Your task to perform on an android device: toggle location history Image 0: 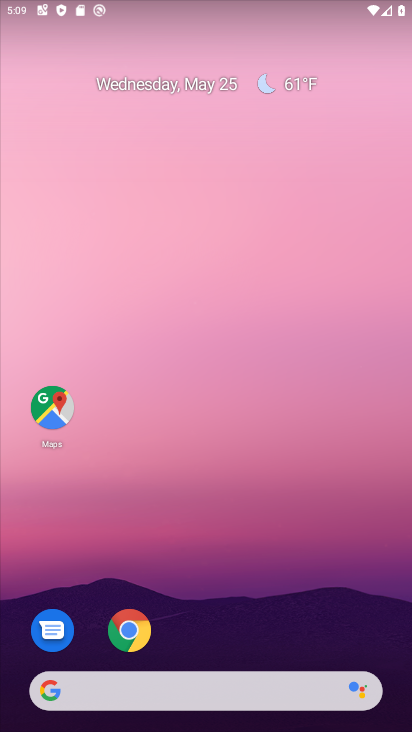
Step 0: drag from (251, 617) to (293, 56)
Your task to perform on an android device: toggle location history Image 1: 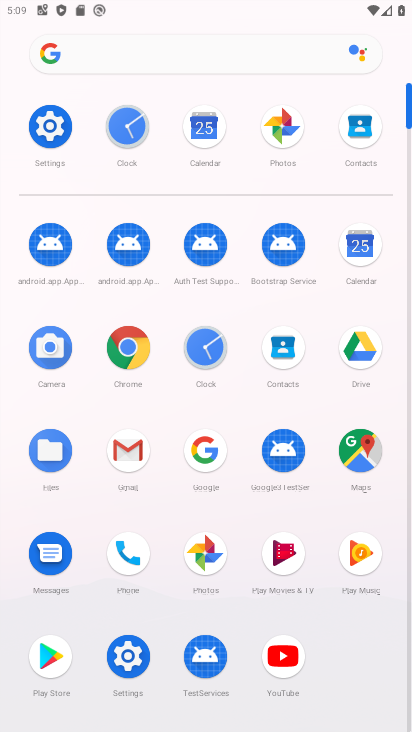
Step 1: click (53, 130)
Your task to perform on an android device: toggle location history Image 2: 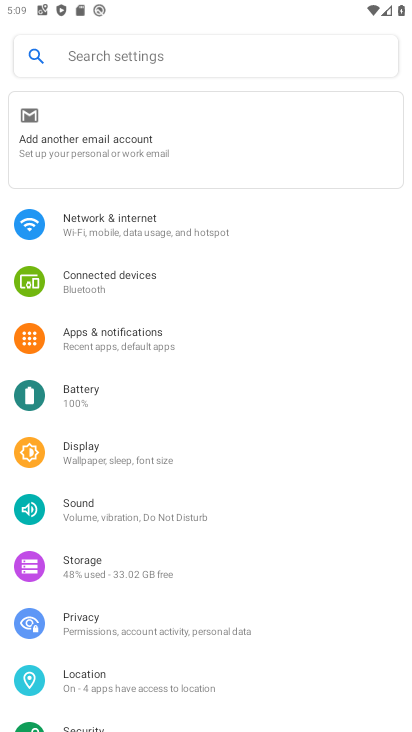
Step 2: click (142, 682)
Your task to perform on an android device: toggle location history Image 3: 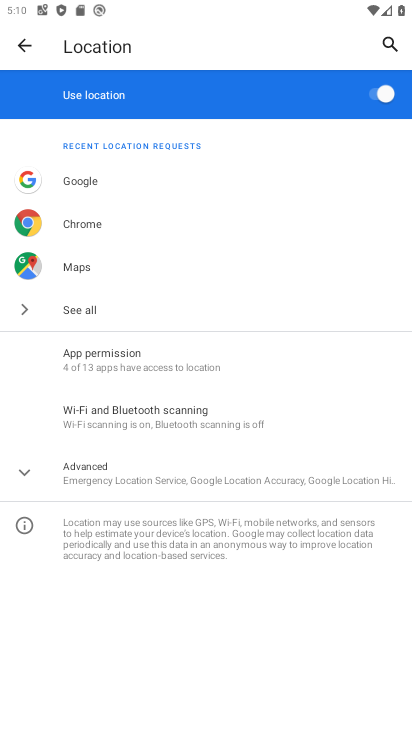
Step 3: click (136, 476)
Your task to perform on an android device: toggle location history Image 4: 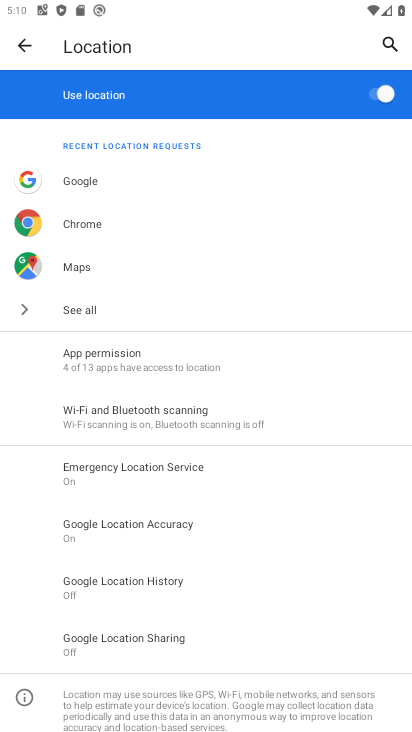
Step 4: click (155, 579)
Your task to perform on an android device: toggle location history Image 5: 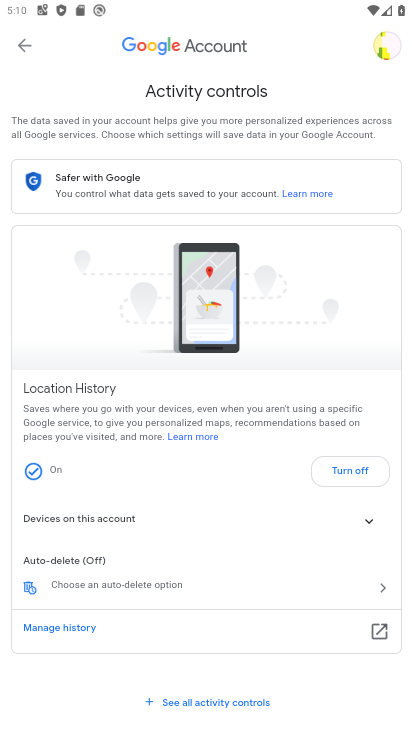
Step 5: click (330, 468)
Your task to perform on an android device: toggle location history Image 6: 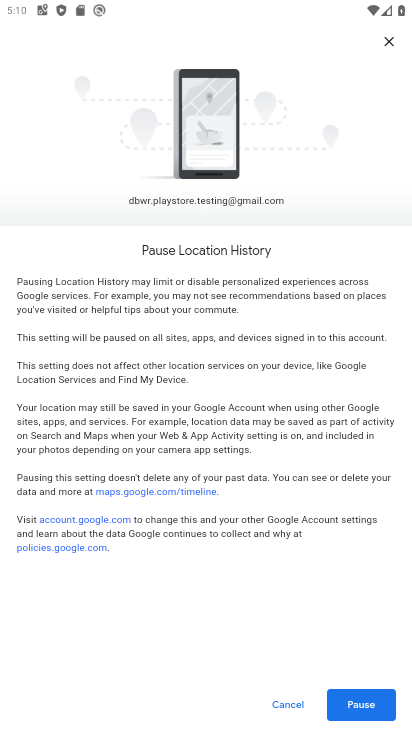
Step 6: click (356, 702)
Your task to perform on an android device: toggle location history Image 7: 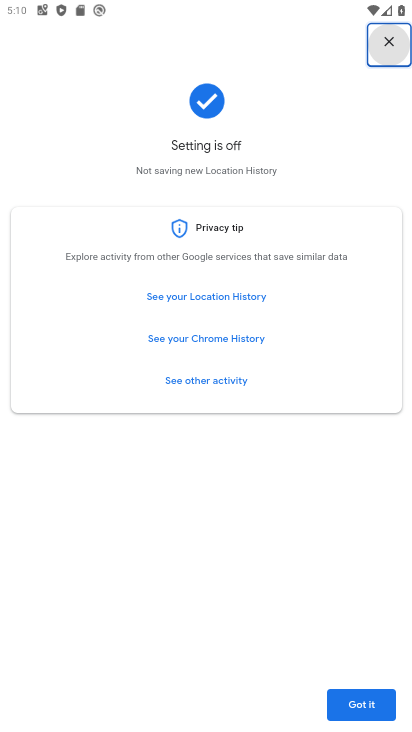
Step 7: click (351, 694)
Your task to perform on an android device: toggle location history Image 8: 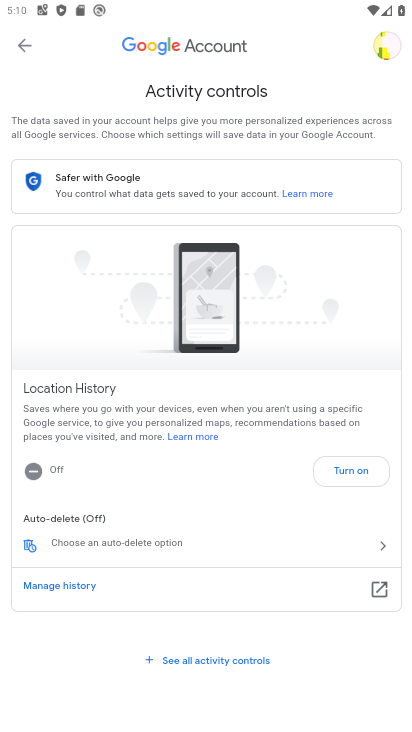
Step 8: task complete